Your task to perform on an android device: Turn on the flashlight Image 0: 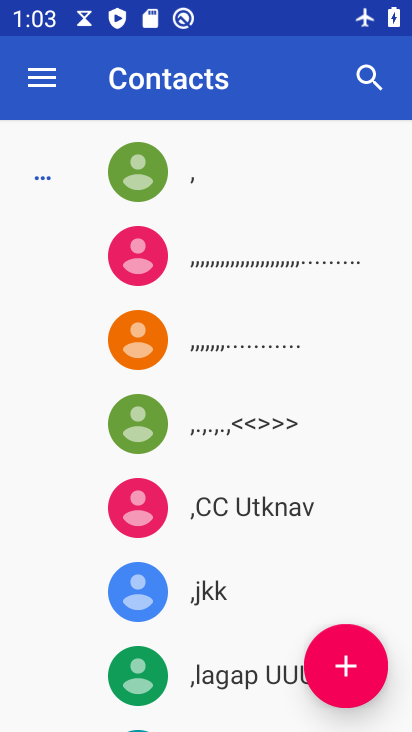
Step 0: press back button
Your task to perform on an android device: Turn on the flashlight Image 1: 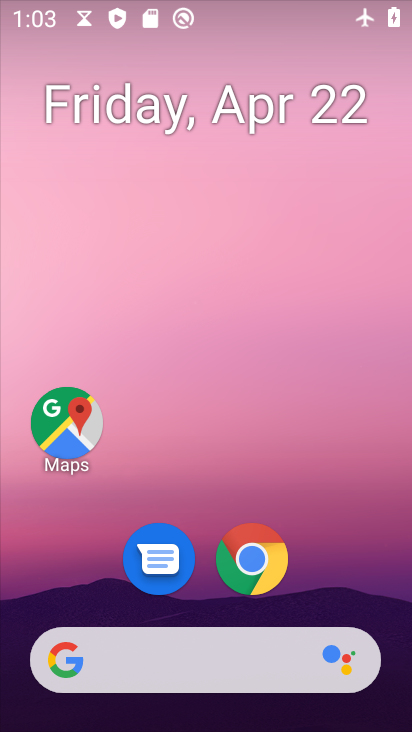
Step 1: drag from (211, 11) to (205, 450)
Your task to perform on an android device: Turn on the flashlight Image 2: 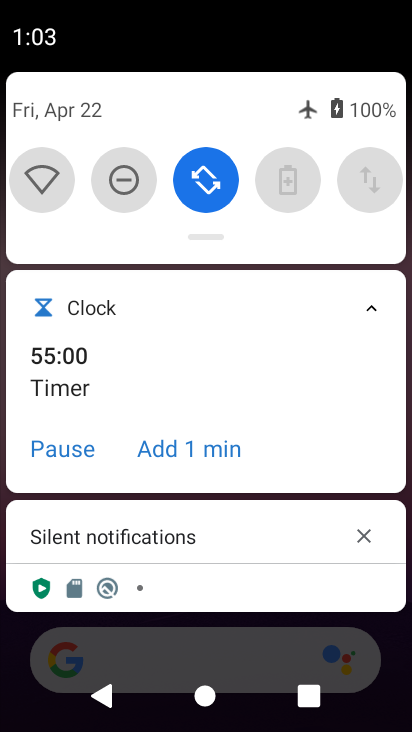
Step 2: drag from (232, 206) to (232, 538)
Your task to perform on an android device: Turn on the flashlight Image 3: 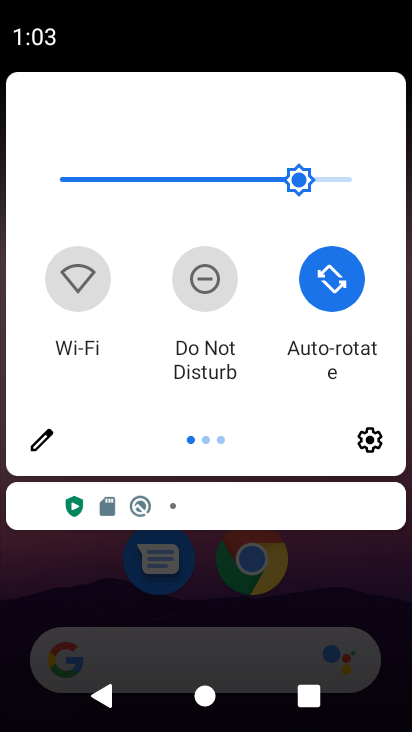
Step 3: drag from (353, 322) to (5, 339)
Your task to perform on an android device: Turn on the flashlight Image 4: 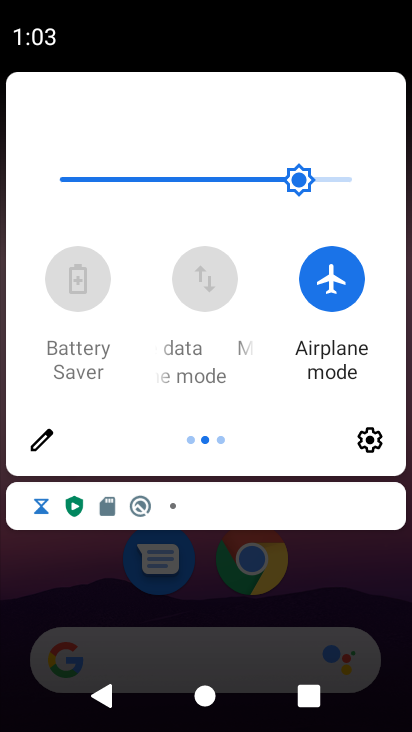
Step 4: drag from (351, 344) to (14, 428)
Your task to perform on an android device: Turn on the flashlight Image 5: 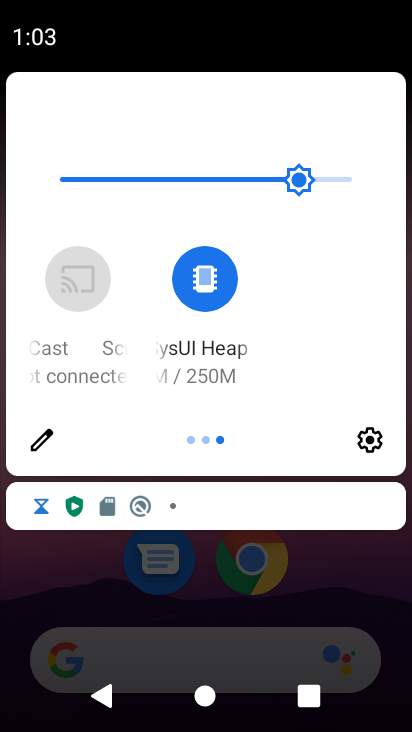
Step 5: click (46, 436)
Your task to perform on an android device: Turn on the flashlight Image 6: 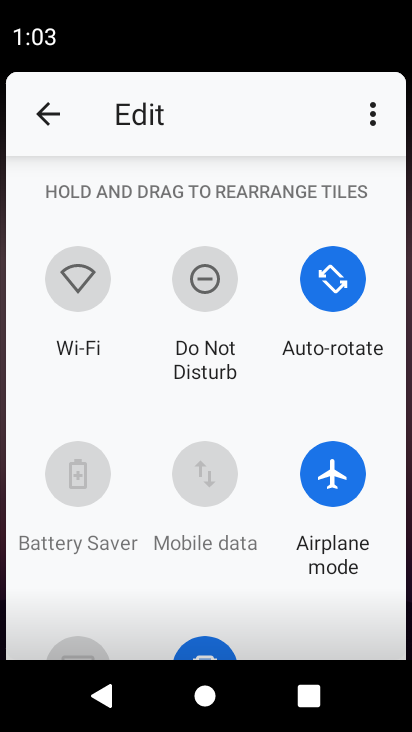
Step 6: task complete